Your task to perform on an android device: turn off notifications settings in the gmail app Image 0: 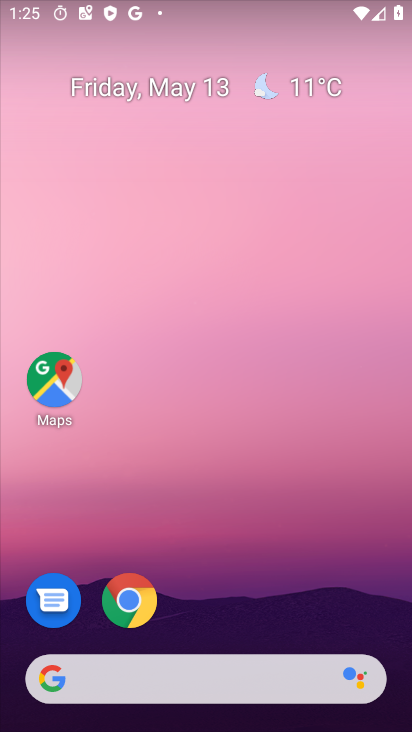
Step 0: drag from (189, 634) to (274, 133)
Your task to perform on an android device: turn off notifications settings in the gmail app Image 1: 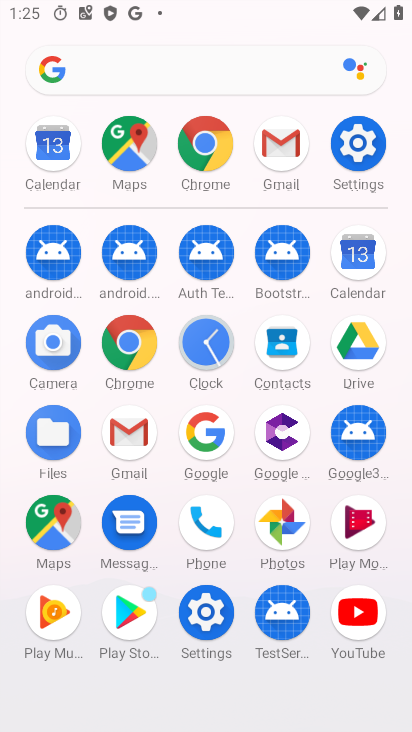
Step 1: click (112, 435)
Your task to perform on an android device: turn off notifications settings in the gmail app Image 2: 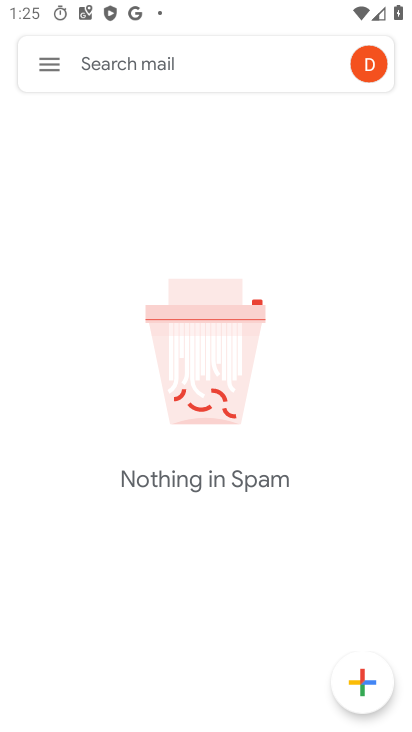
Step 2: click (46, 71)
Your task to perform on an android device: turn off notifications settings in the gmail app Image 3: 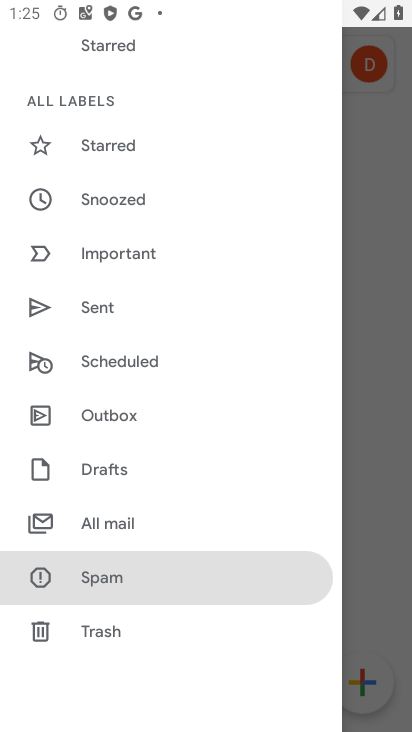
Step 3: drag from (141, 581) to (199, 199)
Your task to perform on an android device: turn off notifications settings in the gmail app Image 4: 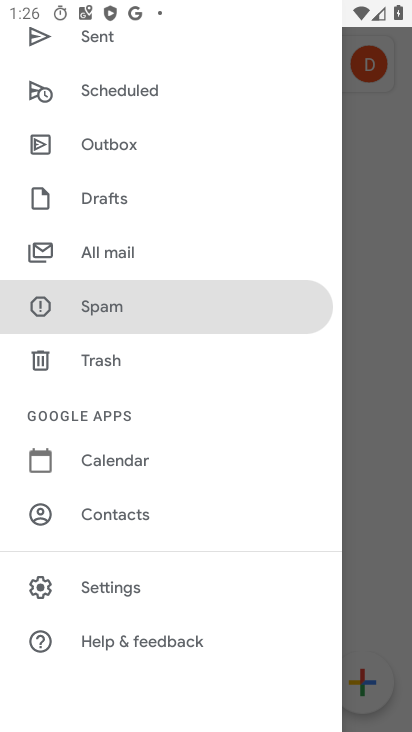
Step 4: drag from (108, 582) to (207, 7)
Your task to perform on an android device: turn off notifications settings in the gmail app Image 5: 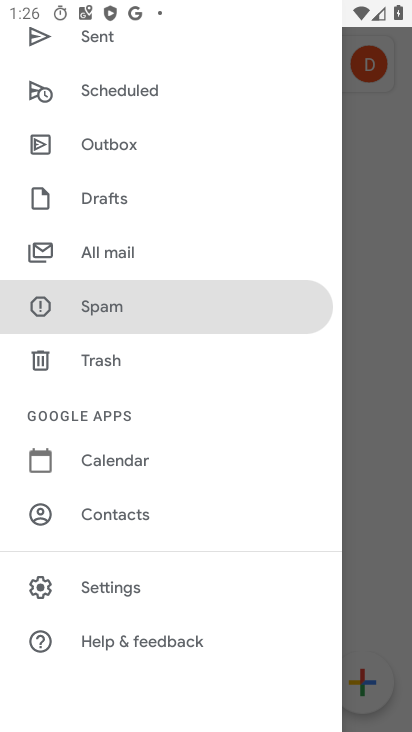
Step 5: click (106, 577)
Your task to perform on an android device: turn off notifications settings in the gmail app Image 6: 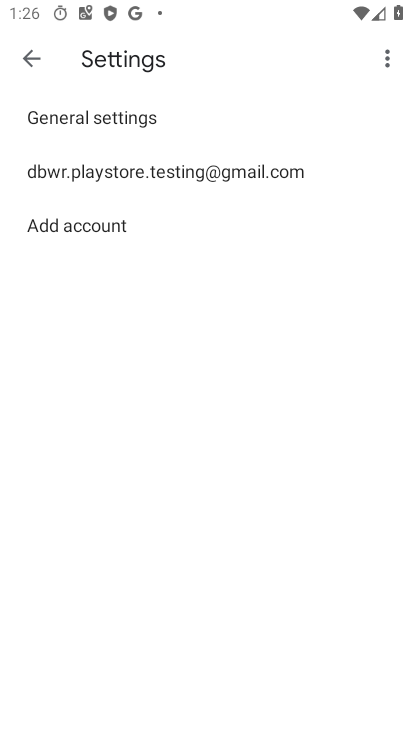
Step 6: click (210, 184)
Your task to perform on an android device: turn off notifications settings in the gmail app Image 7: 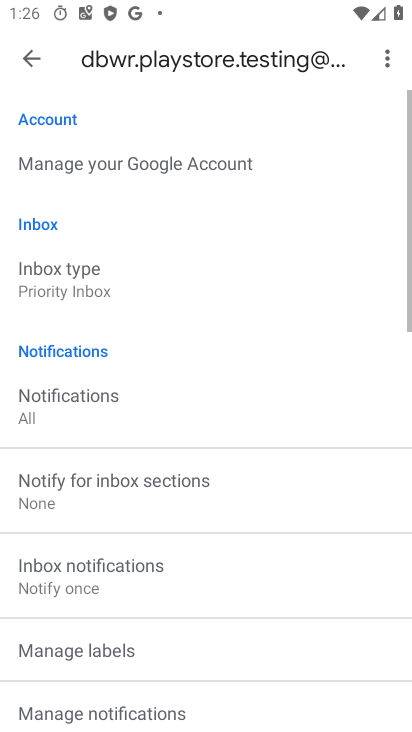
Step 7: drag from (226, 511) to (284, 98)
Your task to perform on an android device: turn off notifications settings in the gmail app Image 8: 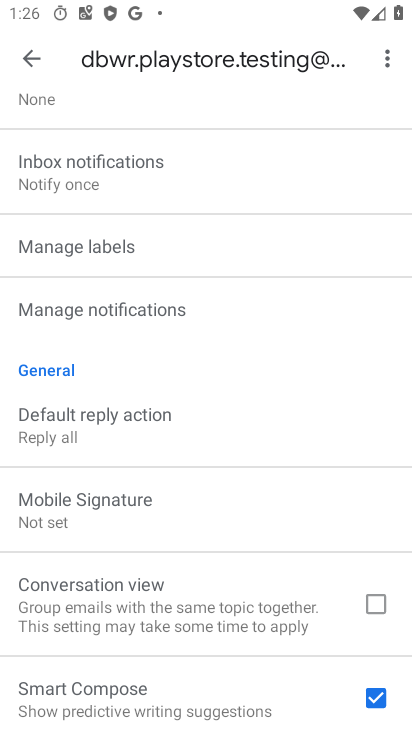
Step 8: click (157, 311)
Your task to perform on an android device: turn off notifications settings in the gmail app Image 9: 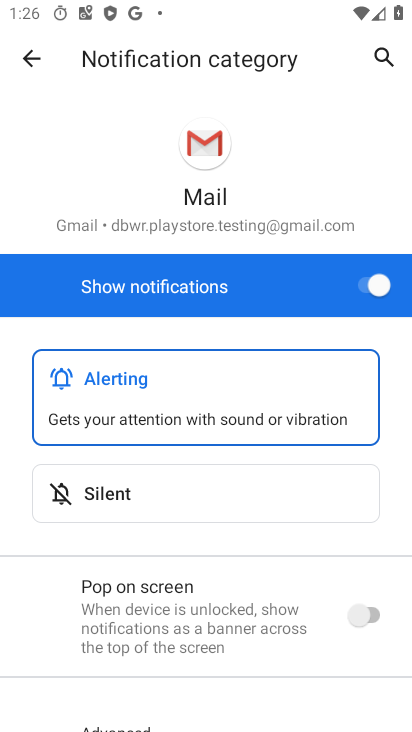
Step 9: click (370, 295)
Your task to perform on an android device: turn off notifications settings in the gmail app Image 10: 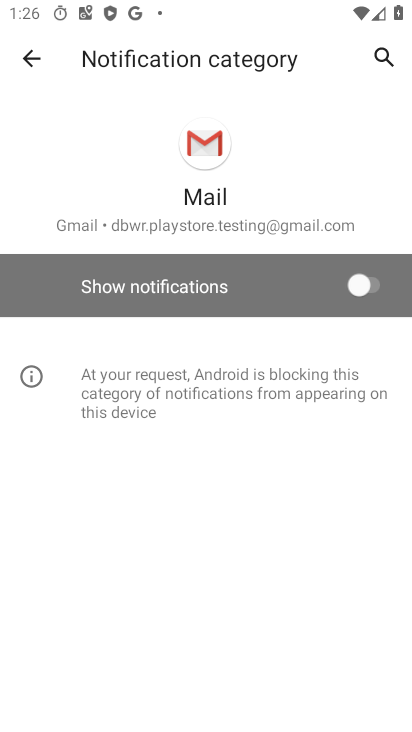
Step 10: task complete